Your task to perform on an android device: turn on improve location accuracy Image 0: 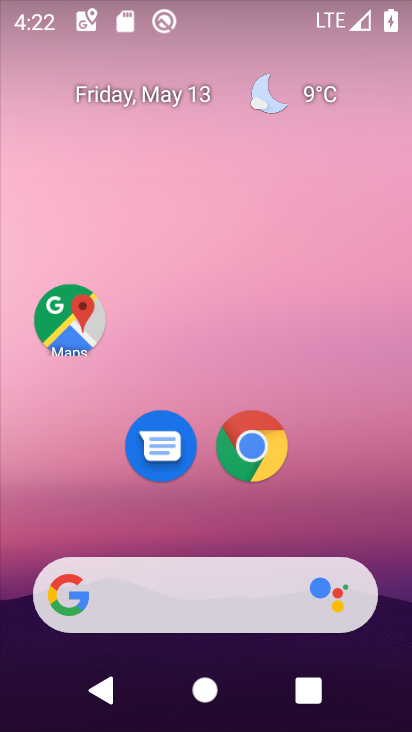
Step 0: drag from (205, 531) to (266, 41)
Your task to perform on an android device: turn on improve location accuracy Image 1: 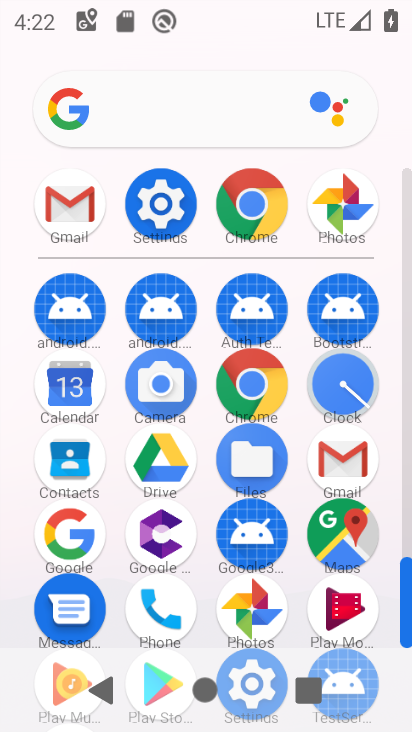
Step 1: click (161, 210)
Your task to perform on an android device: turn on improve location accuracy Image 2: 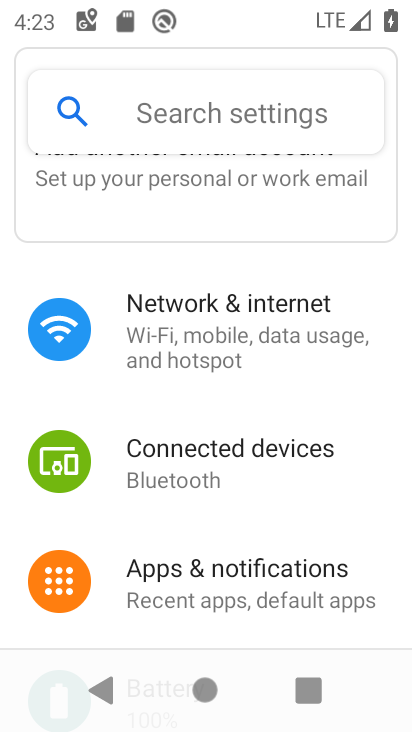
Step 2: drag from (128, 519) to (195, 198)
Your task to perform on an android device: turn on improve location accuracy Image 3: 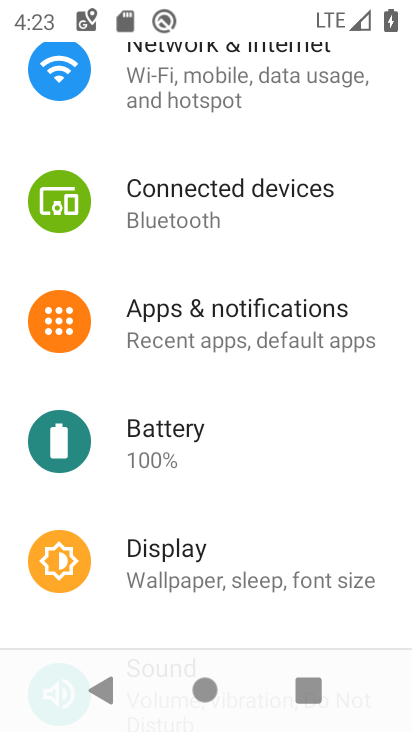
Step 3: drag from (153, 482) to (197, 347)
Your task to perform on an android device: turn on improve location accuracy Image 4: 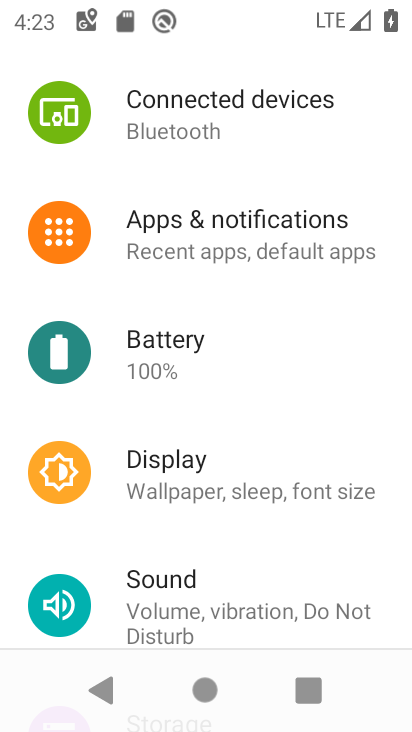
Step 4: drag from (188, 576) to (201, 358)
Your task to perform on an android device: turn on improve location accuracy Image 5: 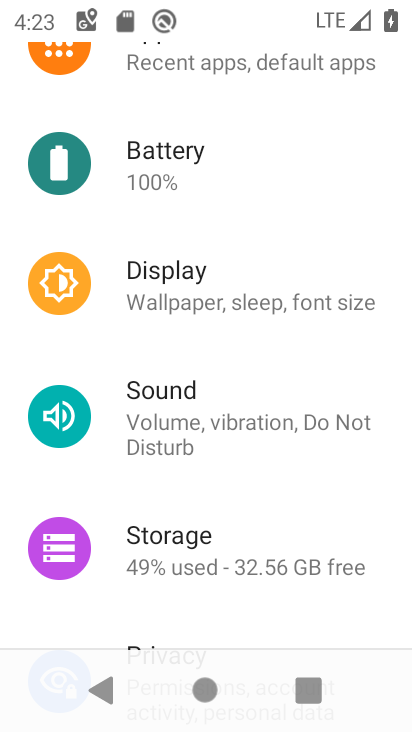
Step 5: drag from (208, 604) to (233, 182)
Your task to perform on an android device: turn on improve location accuracy Image 6: 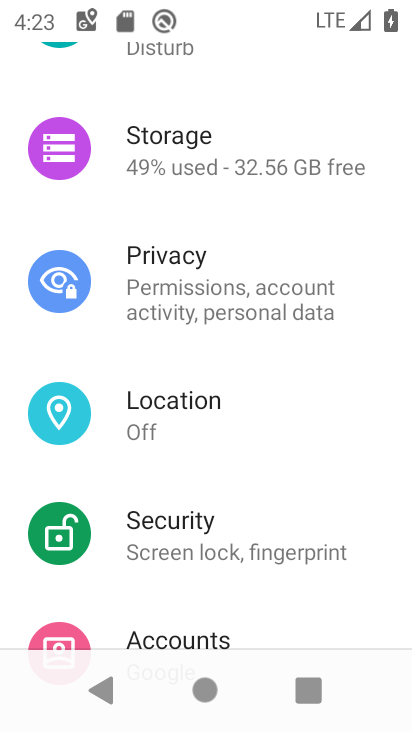
Step 6: drag from (249, 424) to (237, 9)
Your task to perform on an android device: turn on improve location accuracy Image 7: 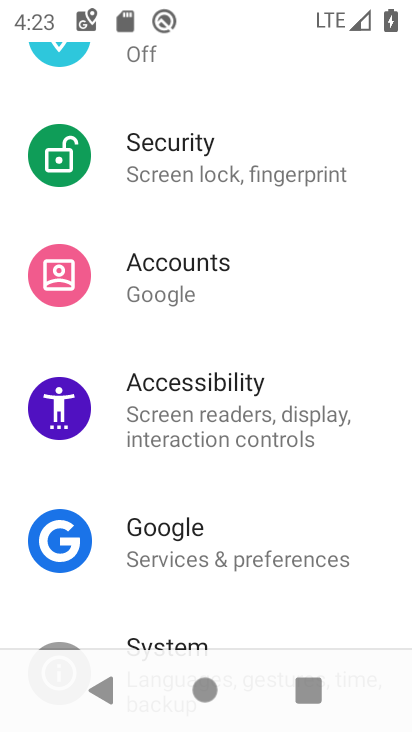
Step 7: drag from (232, 606) to (273, 278)
Your task to perform on an android device: turn on improve location accuracy Image 8: 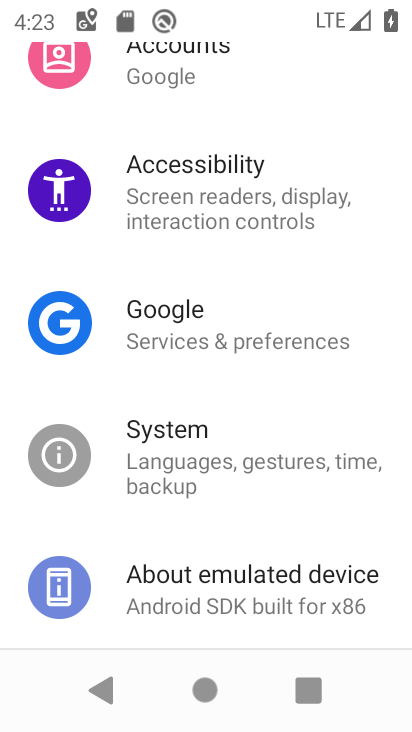
Step 8: drag from (226, 175) to (315, 572)
Your task to perform on an android device: turn on improve location accuracy Image 9: 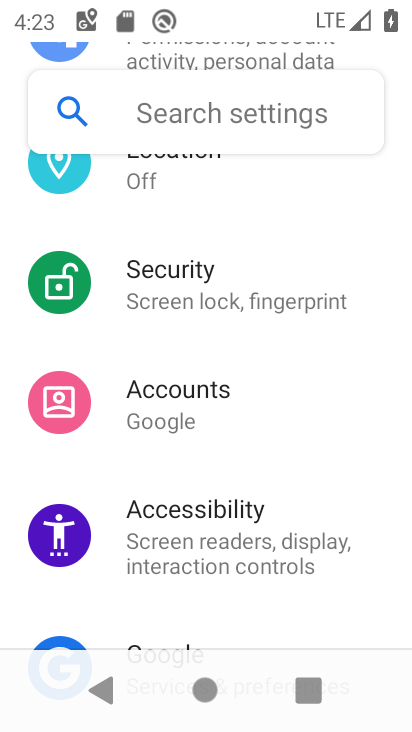
Step 9: click (212, 184)
Your task to perform on an android device: turn on improve location accuracy Image 10: 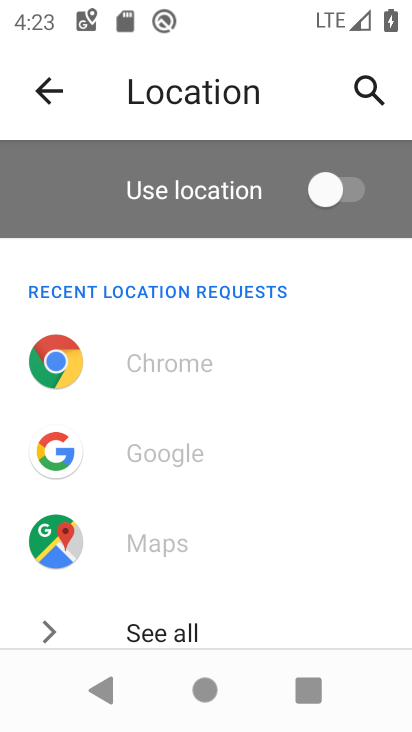
Step 10: drag from (261, 555) to (267, 167)
Your task to perform on an android device: turn on improve location accuracy Image 11: 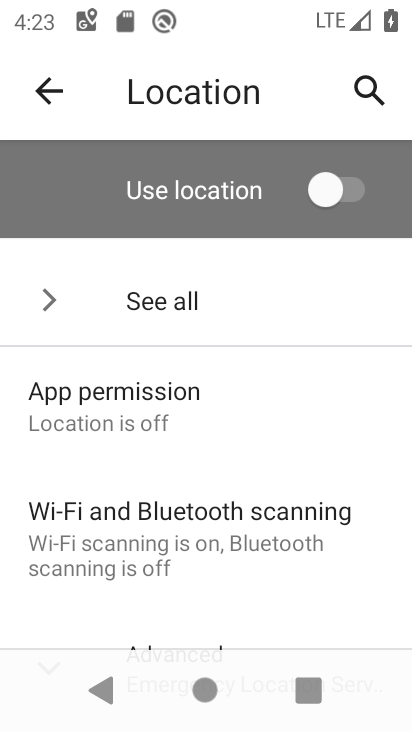
Step 11: drag from (129, 548) to (181, 229)
Your task to perform on an android device: turn on improve location accuracy Image 12: 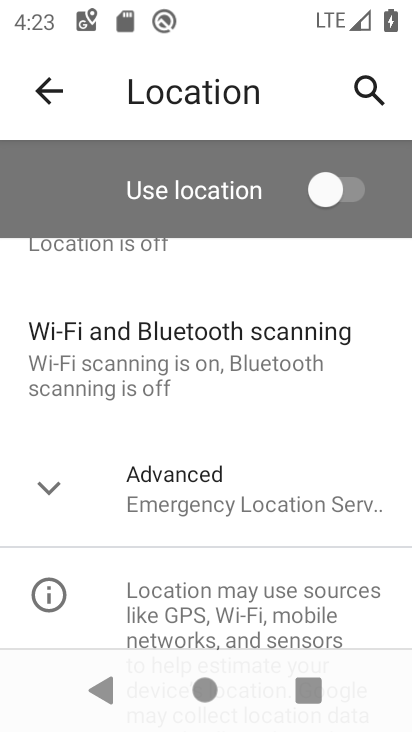
Step 12: click (230, 499)
Your task to perform on an android device: turn on improve location accuracy Image 13: 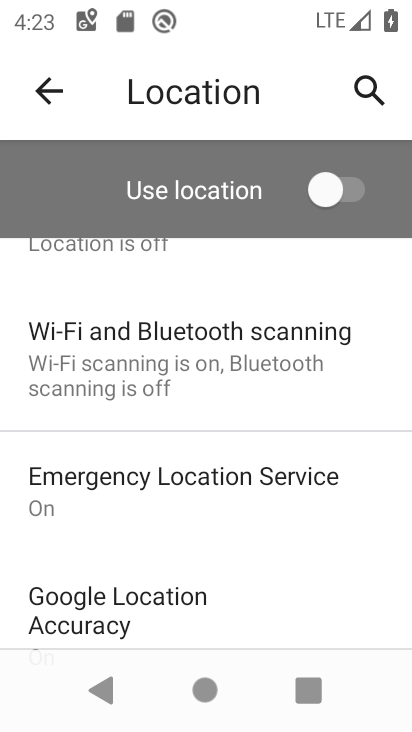
Step 13: drag from (276, 598) to (300, 368)
Your task to perform on an android device: turn on improve location accuracy Image 14: 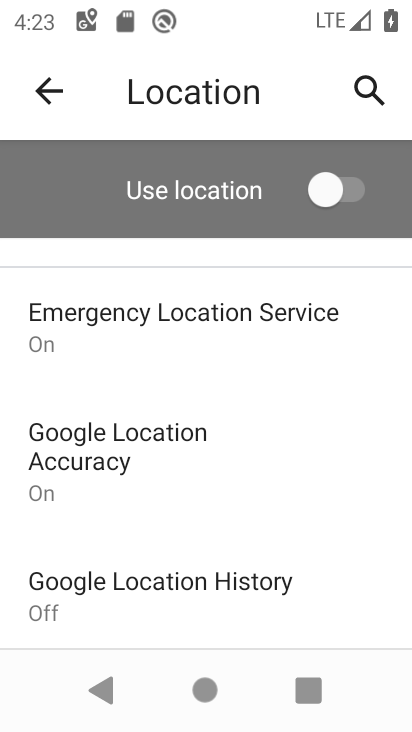
Step 14: click (187, 468)
Your task to perform on an android device: turn on improve location accuracy Image 15: 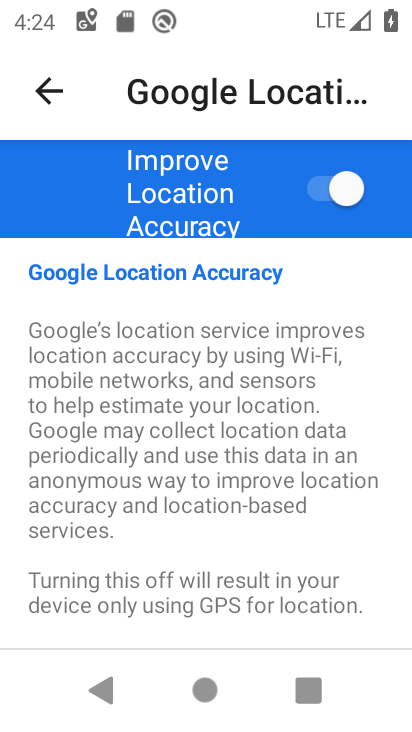
Step 15: task complete